Your task to perform on an android device: toggle wifi Image 0: 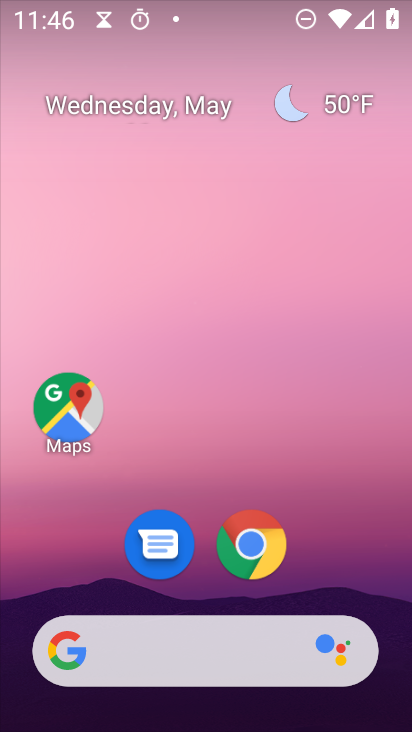
Step 0: drag from (154, 4) to (188, 370)
Your task to perform on an android device: toggle wifi Image 1: 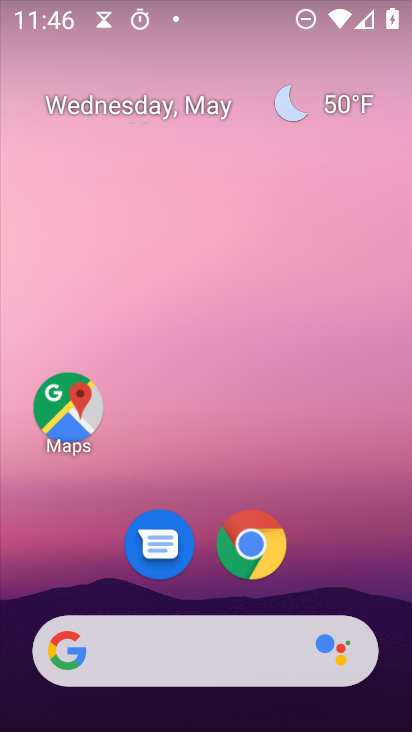
Step 1: drag from (181, 13) to (202, 518)
Your task to perform on an android device: toggle wifi Image 2: 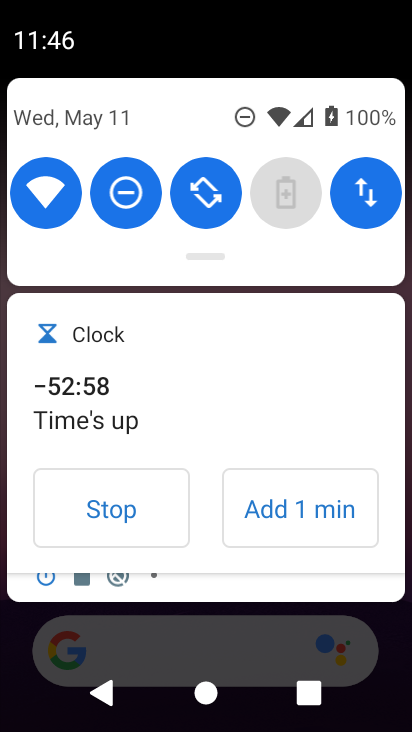
Step 2: click (62, 184)
Your task to perform on an android device: toggle wifi Image 3: 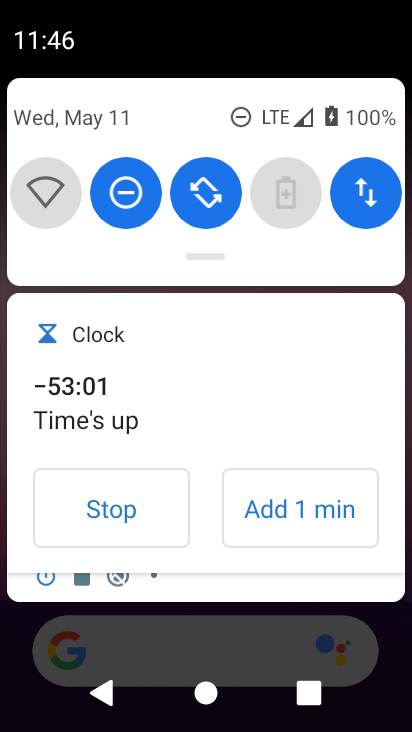
Step 3: click (62, 184)
Your task to perform on an android device: toggle wifi Image 4: 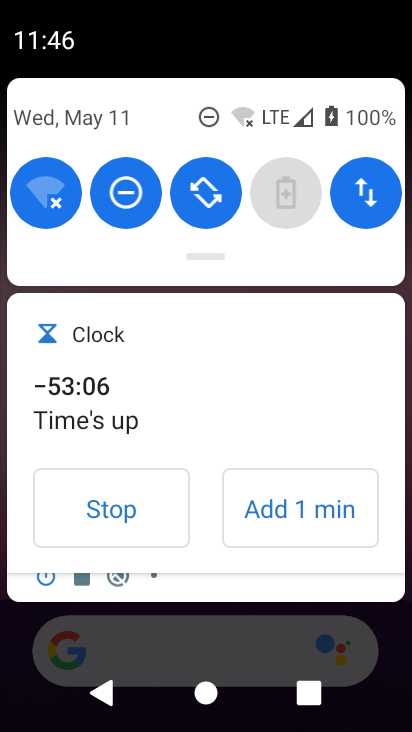
Step 4: task complete